Your task to perform on an android device: Go to privacy settings Image 0: 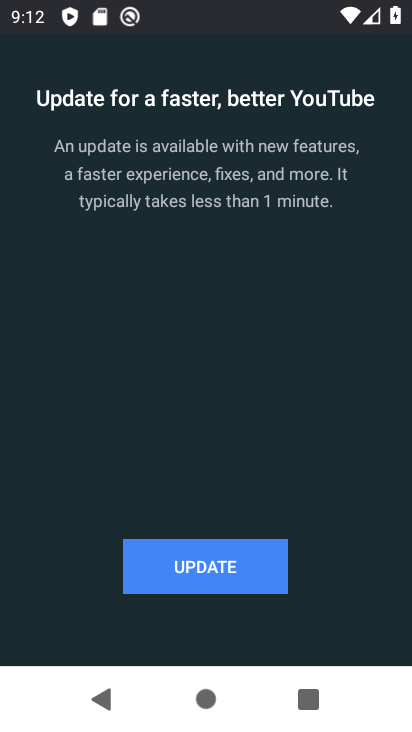
Step 0: press back button
Your task to perform on an android device: Go to privacy settings Image 1: 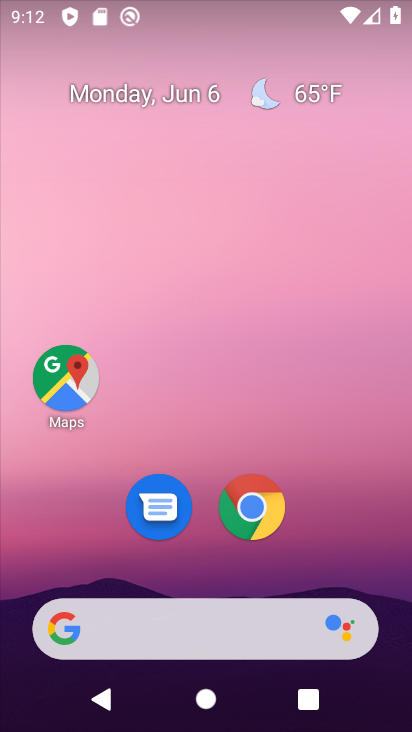
Step 1: drag from (322, 545) to (277, 185)
Your task to perform on an android device: Go to privacy settings Image 2: 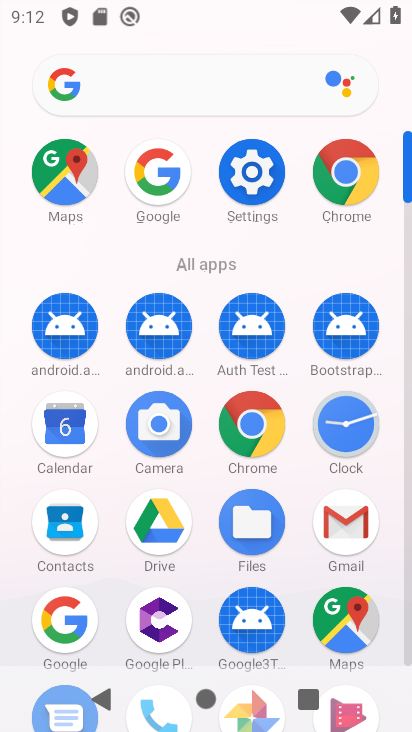
Step 2: click (254, 161)
Your task to perform on an android device: Go to privacy settings Image 3: 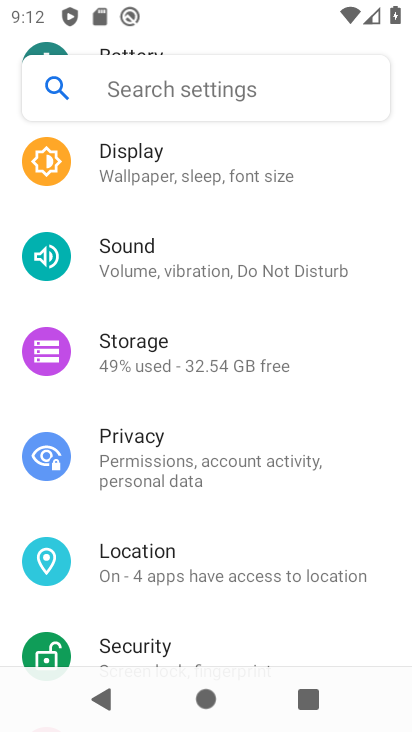
Step 3: click (147, 456)
Your task to perform on an android device: Go to privacy settings Image 4: 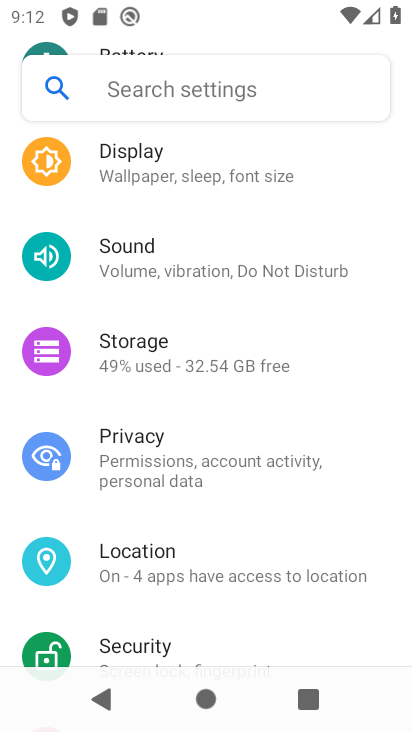
Step 4: click (173, 441)
Your task to perform on an android device: Go to privacy settings Image 5: 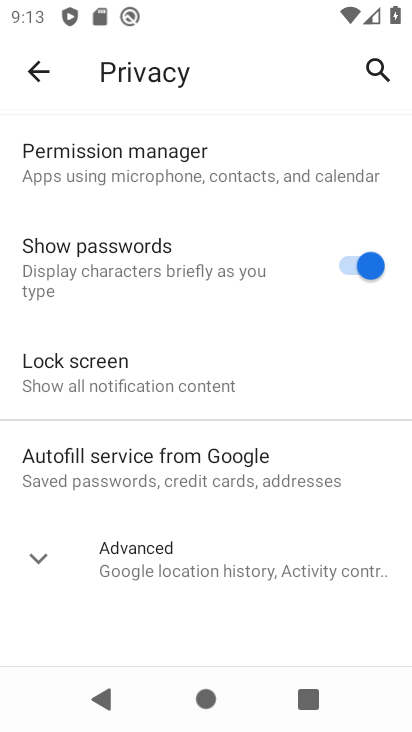
Step 5: task complete